Your task to perform on an android device: Find coffee shops on Maps Image 0: 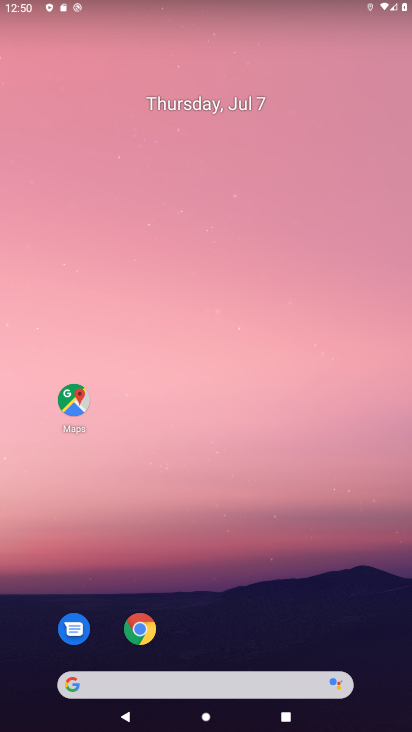
Step 0: drag from (236, 611) to (197, 144)
Your task to perform on an android device: Find coffee shops on Maps Image 1: 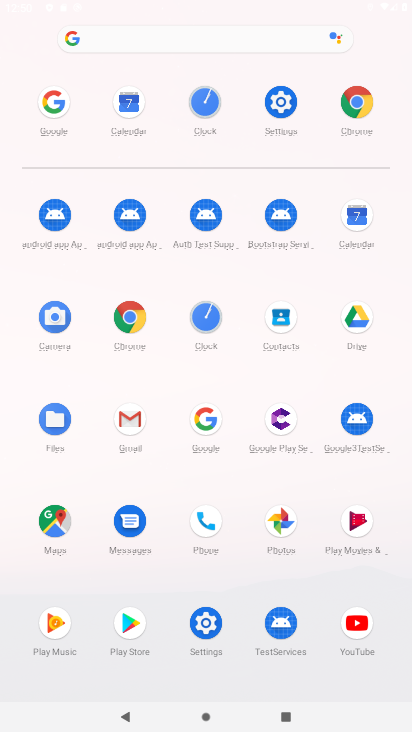
Step 1: click (48, 523)
Your task to perform on an android device: Find coffee shops on Maps Image 2: 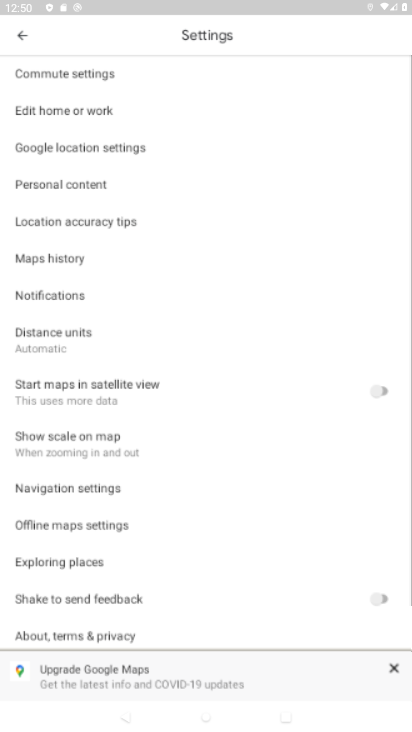
Step 2: press back button
Your task to perform on an android device: Find coffee shops on Maps Image 3: 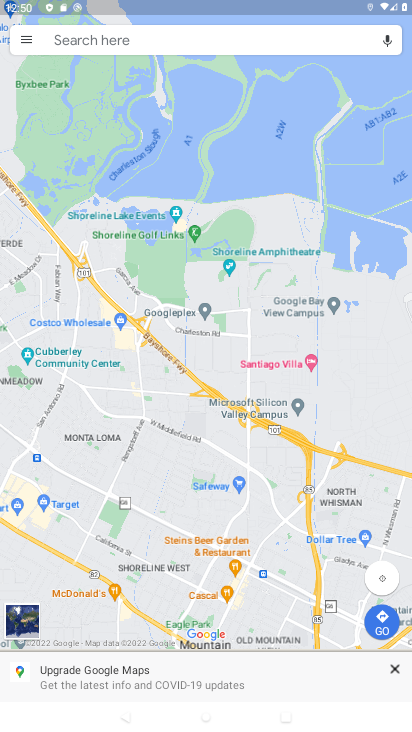
Step 3: click (163, 38)
Your task to perform on an android device: Find coffee shops on Maps Image 4: 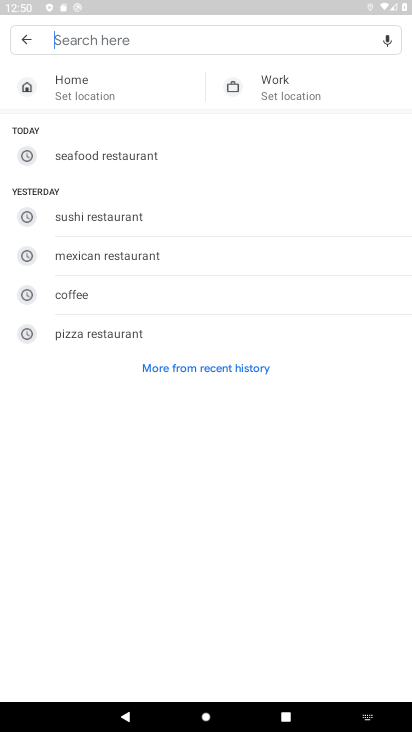
Step 4: click (91, 294)
Your task to perform on an android device: Find coffee shops on Maps Image 5: 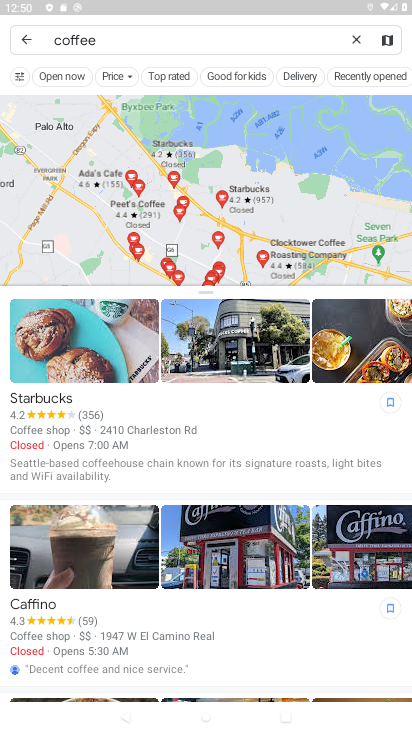
Step 5: task complete